Your task to perform on an android device: turn off location history Image 0: 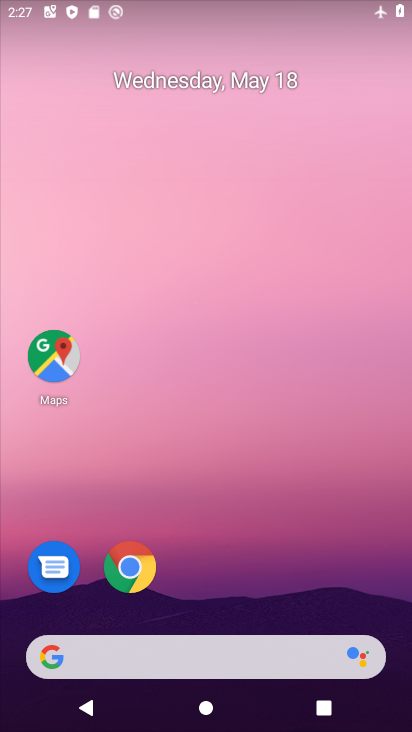
Step 0: drag from (204, 577) to (280, 180)
Your task to perform on an android device: turn off location history Image 1: 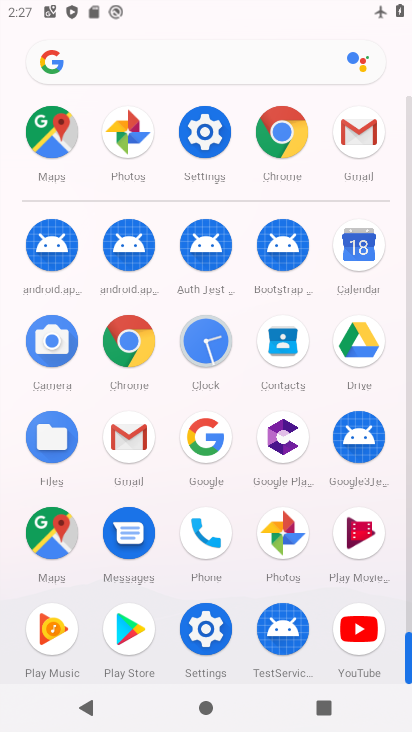
Step 1: click (209, 122)
Your task to perform on an android device: turn off location history Image 2: 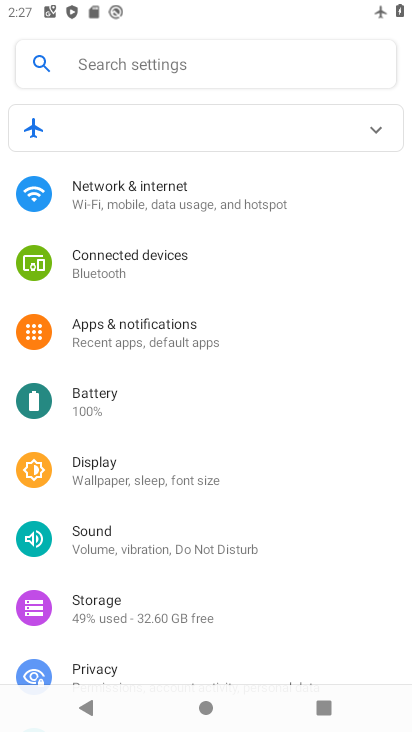
Step 2: drag from (197, 569) to (241, 143)
Your task to perform on an android device: turn off location history Image 3: 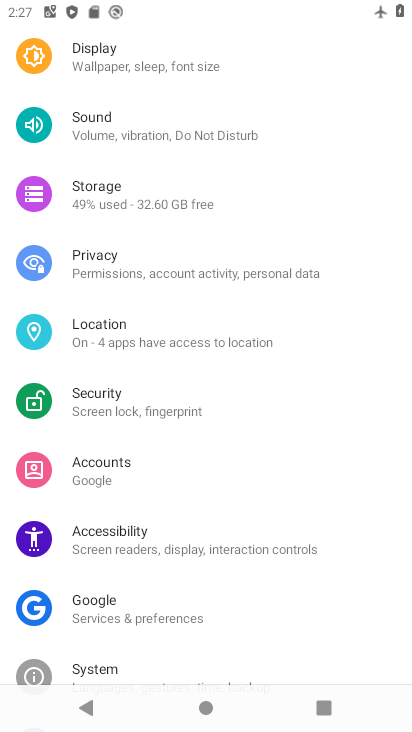
Step 3: click (166, 329)
Your task to perform on an android device: turn off location history Image 4: 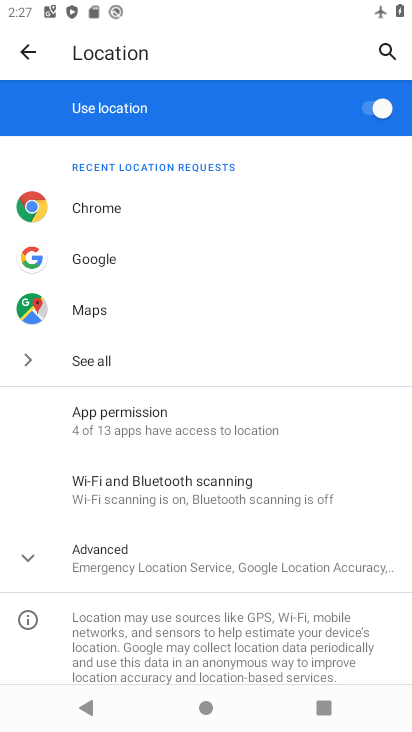
Step 4: click (138, 546)
Your task to perform on an android device: turn off location history Image 5: 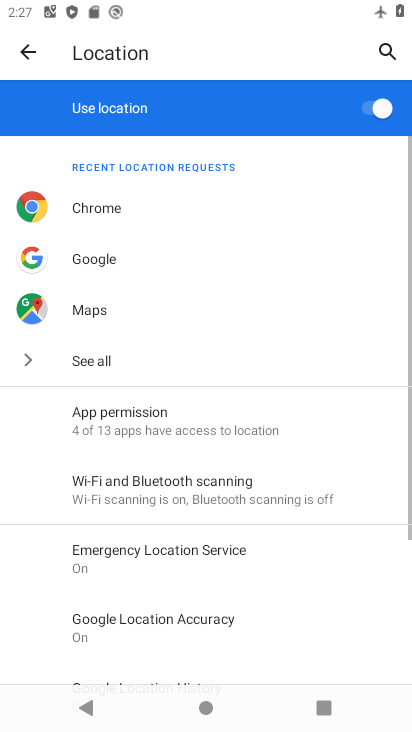
Step 5: drag from (152, 617) to (198, 367)
Your task to perform on an android device: turn off location history Image 6: 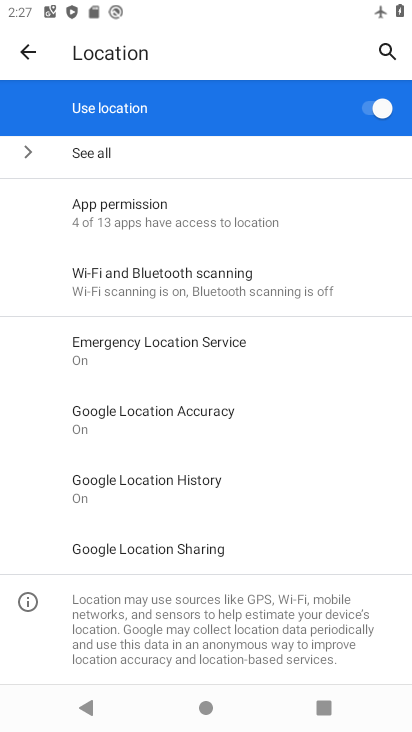
Step 6: click (160, 490)
Your task to perform on an android device: turn off location history Image 7: 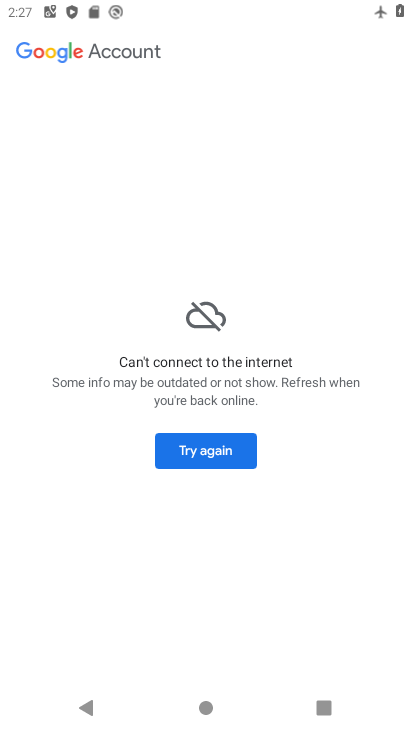
Step 7: click (239, 470)
Your task to perform on an android device: turn off location history Image 8: 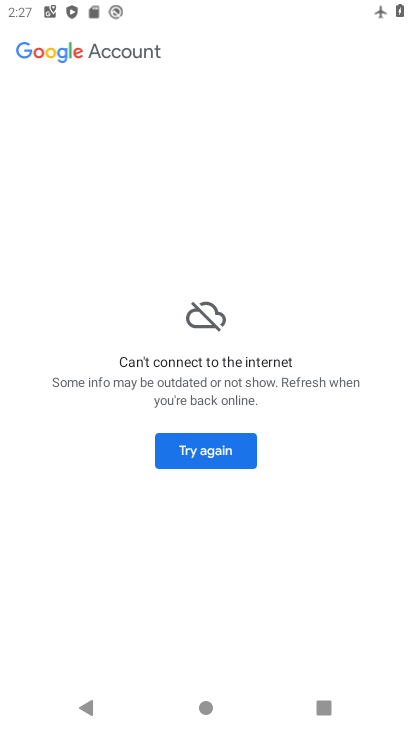
Step 8: click (175, 450)
Your task to perform on an android device: turn off location history Image 9: 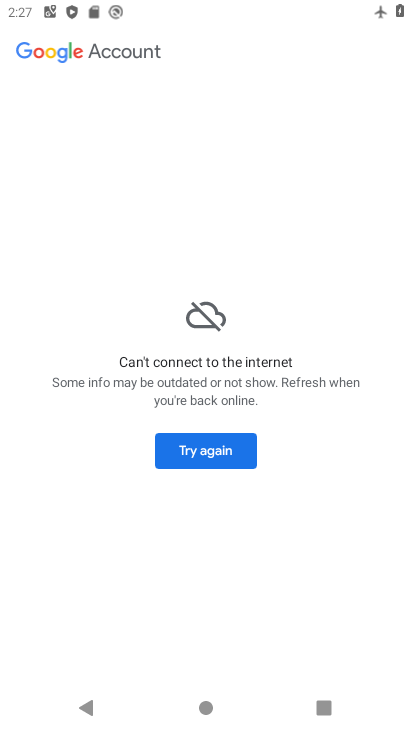
Step 9: task complete